Your task to perform on an android device: turn pop-ups on in chrome Image 0: 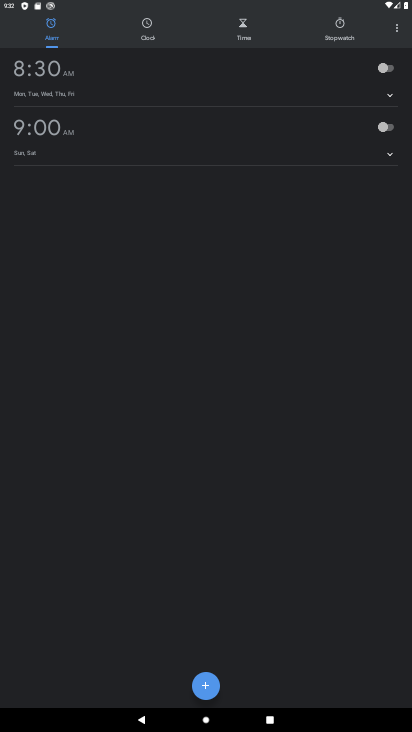
Step 0: press home button
Your task to perform on an android device: turn pop-ups on in chrome Image 1: 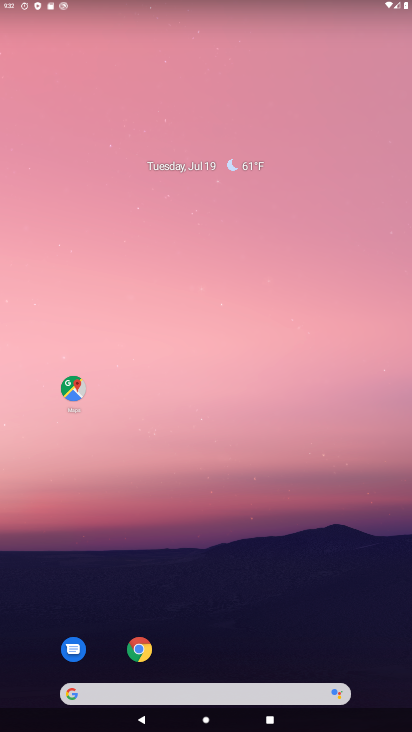
Step 1: drag from (328, 510) to (286, 378)
Your task to perform on an android device: turn pop-ups on in chrome Image 2: 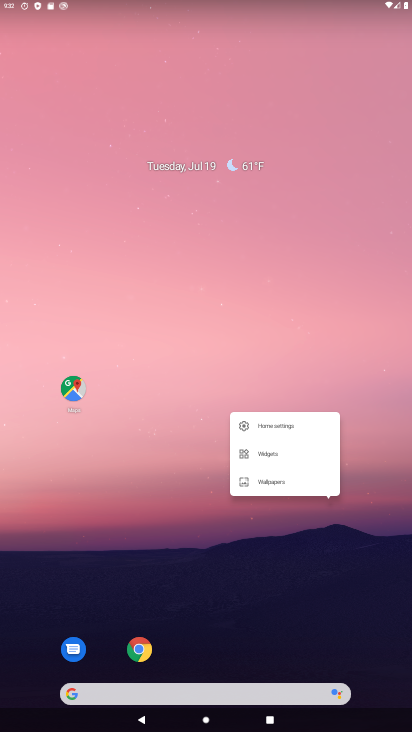
Step 2: click (278, 339)
Your task to perform on an android device: turn pop-ups on in chrome Image 3: 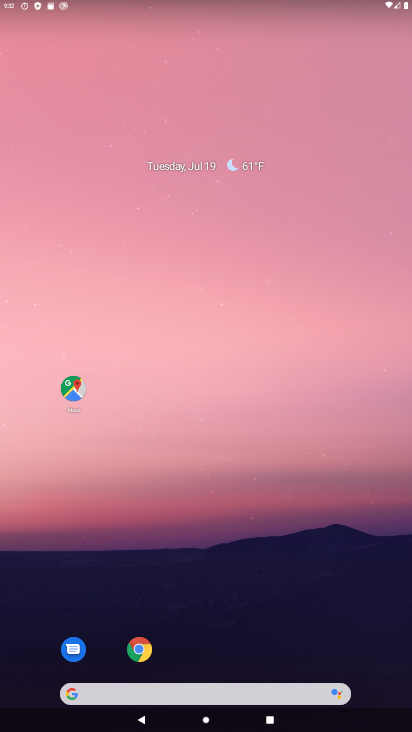
Step 3: click (134, 652)
Your task to perform on an android device: turn pop-ups on in chrome Image 4: 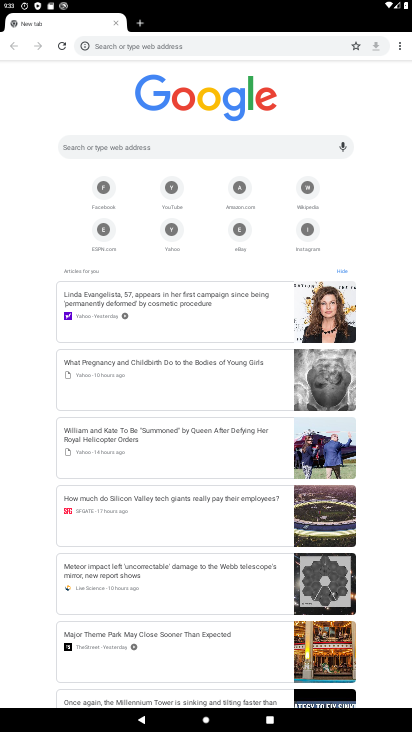
Step 4: click (401, 44)
Your task to perform on an android device: turn pop-ups on in chrome Image 5: 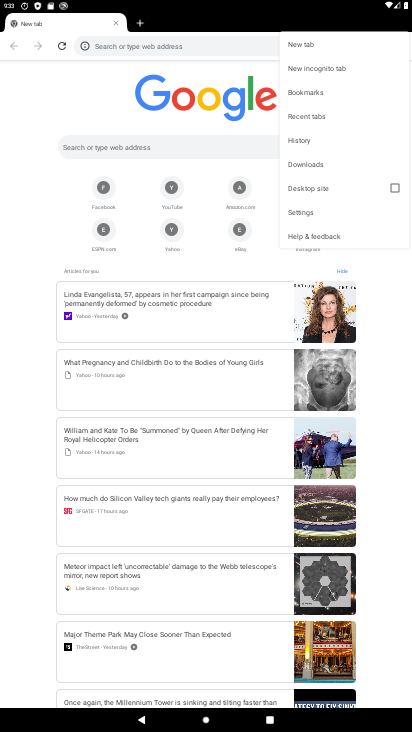
Step 5: click (313, 207)
Your task to perform on an android device: turn pop-ups on in chrome Image 6: 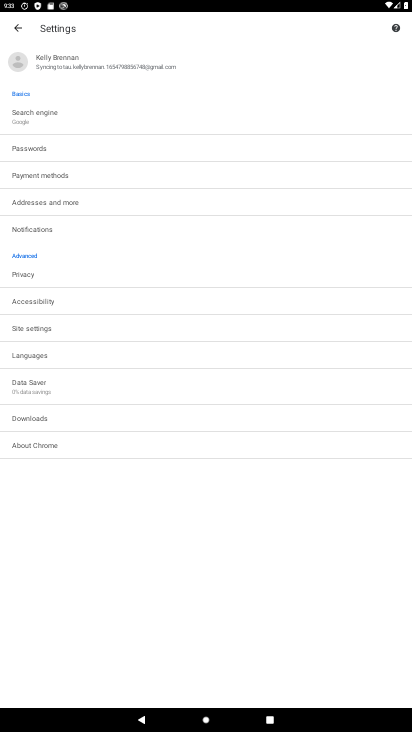
Step 6: click (23, 325)
Your task to perform on an android device: turn pop-ups on in chrome Image 7: 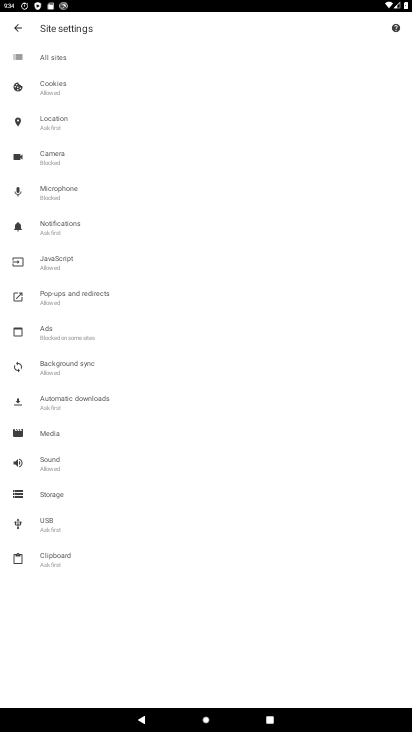
Step 7: click (70, 291)
Your task to perform on an android device: turn pop-ups on in chrome Image 8: 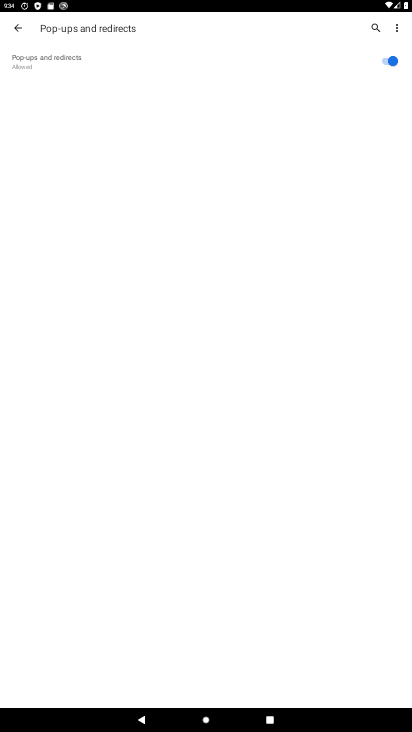
Step 8: task complete